Your task to perform on an android device: delete the emails in spam in the gmail app Image 0: 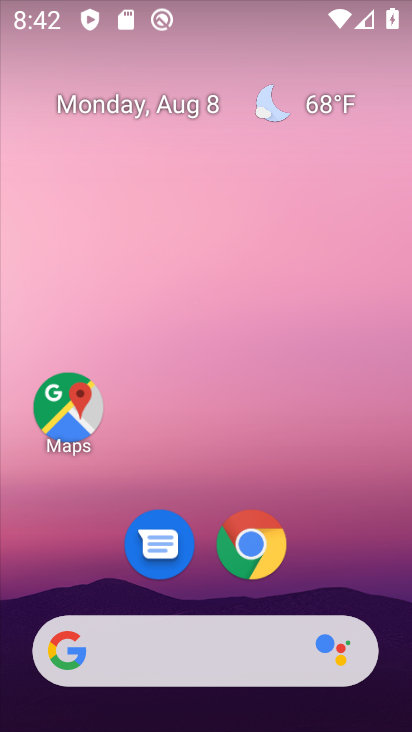
Step 0: press home button
Your task to perform on an android device: delete the emails in spam in the gmail app Image 1: 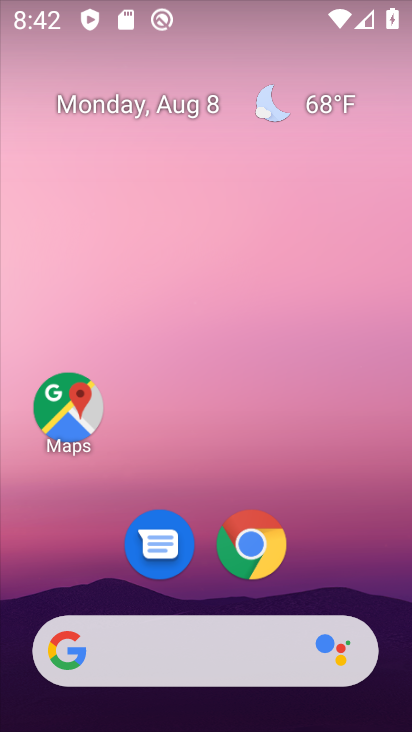
Step 1: drag from (313, 592) to (353, 58)
Your task to perform on an android device: delete the emails in spam in the gmail app Image 2: 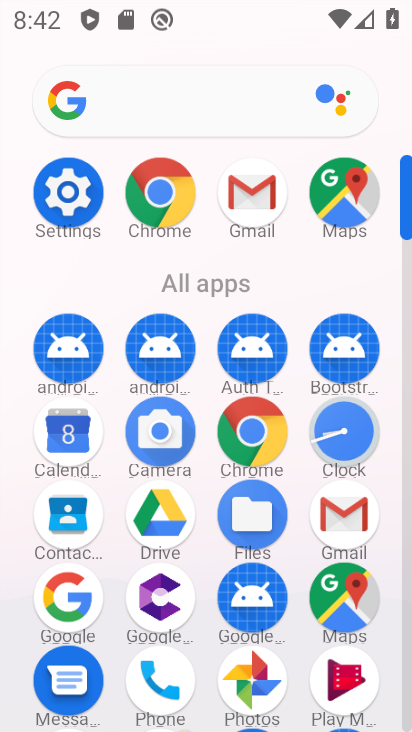
Step 2: click (253, 203)
Your task to perform on an android device: delete the emails in spam in the gmail app Image 3: 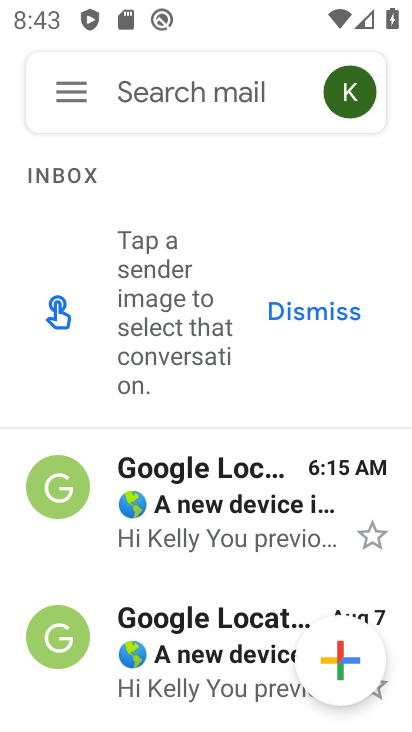
Step 3: click (69, 89)
Your task to perform on an android device: delete the emails in spam in the gmail app Image 4: 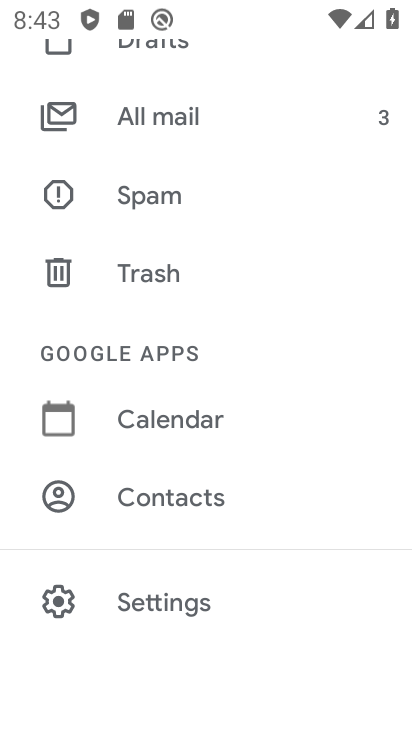
Step 4: click (105, 196)
Your task to perform on an android device: delete the emails in spam in the gmail app Image 5: 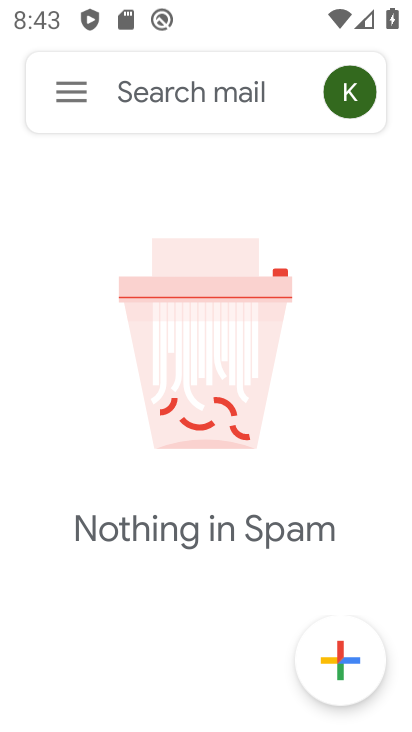
Step 5: task complete